Your task to perform on an android device: check the backup settings in the google photos Image 0: 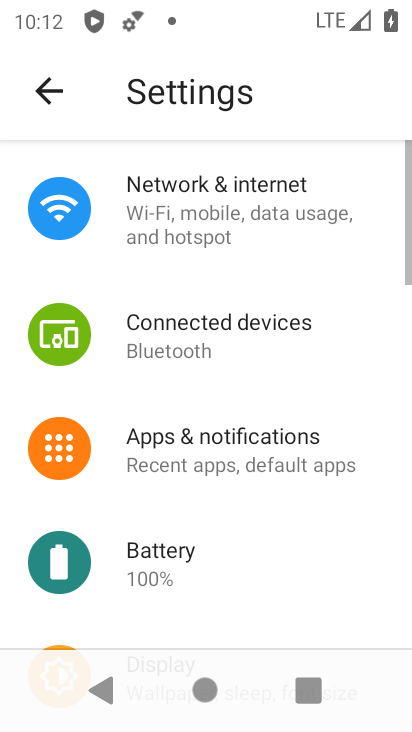
Step 0: press home button
Your task to perform on an android device: check the backup settings in the google photos Image 1: 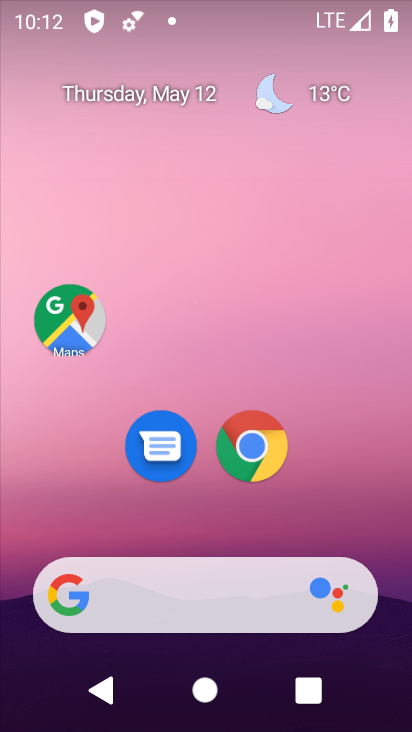
Step 1: drag from (241, 549) to (306, 15)
Your task to perform on an android device: check the backup settings in the google photos Image 2: 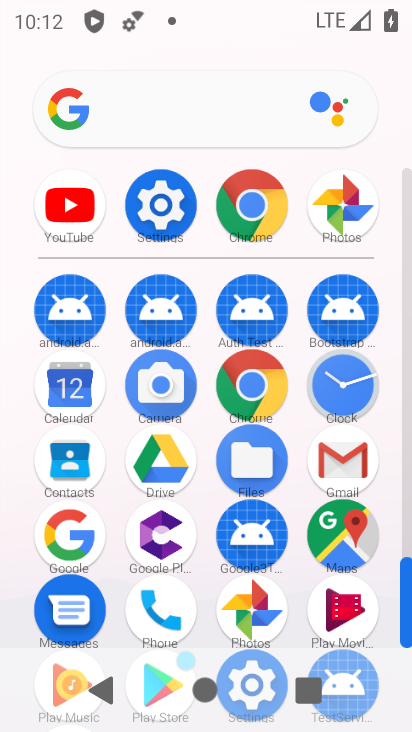
Step 2: click (260, 609)
Your task to perform on an android device: check the backup settings in the google photos Image 3: 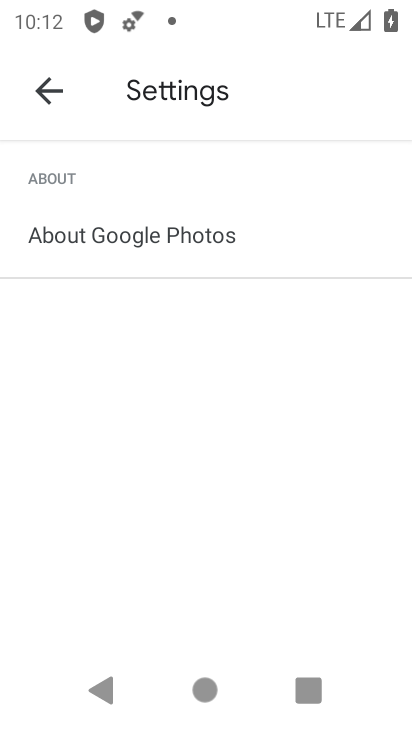
Step 3: press back button
Your task to perform on an android device: check the backup settings in the google photos Image 4: 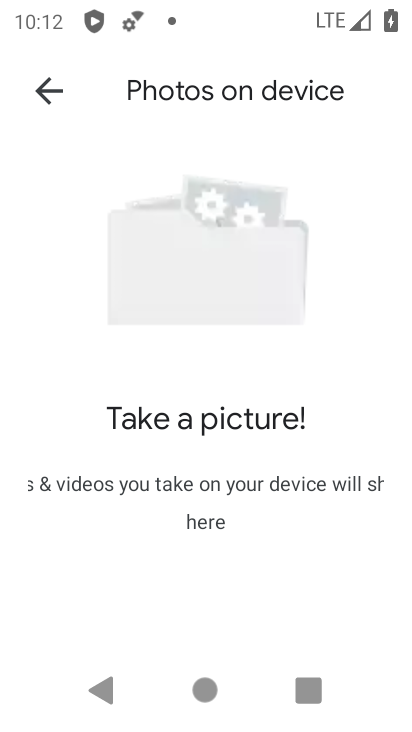
Step 4: press back button
Your task to perform on an android device: check the backup settings in the google photos Image 5: 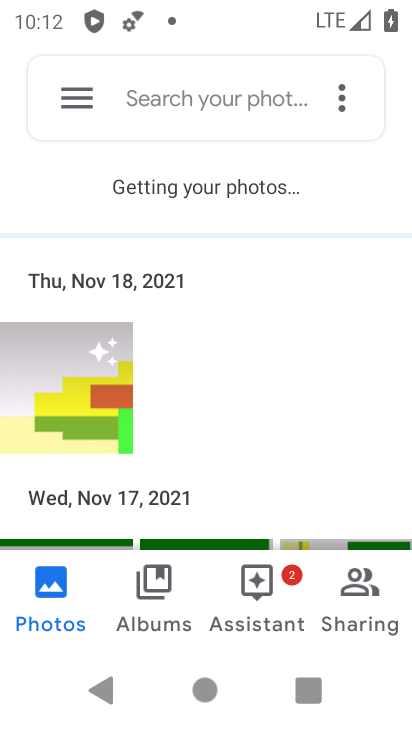
Step 5: click (88, 93)
Your task to perform on an android device: check the backup settings in the google photos Image 6: 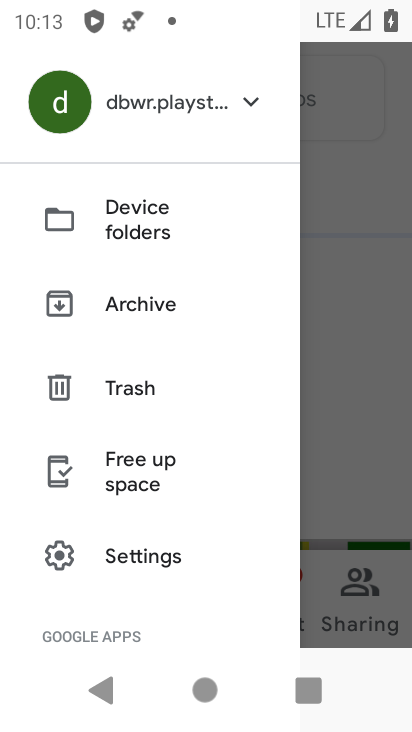
Step 6: click (169, 557)
Your task to perform on an android device: check the backup settings in the google photos Image 7: 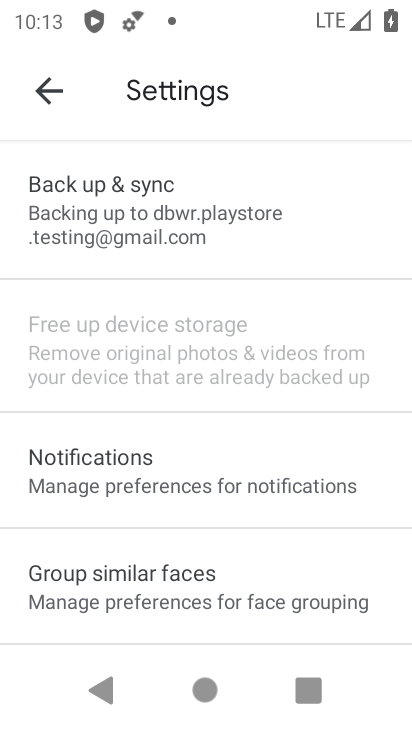
Step 7: click (231, 225)
Your task to perform on an android device: check the backup settings in the google photos Image 8: 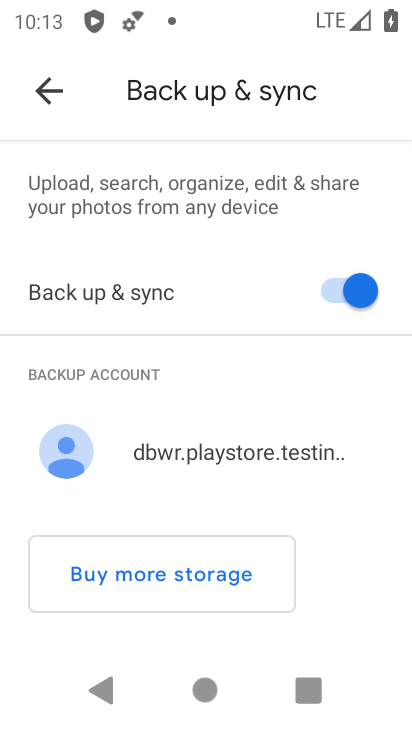
Step 8: task complete